Your task to perform on an android device: refresh tabs in the chrome app Image 0: 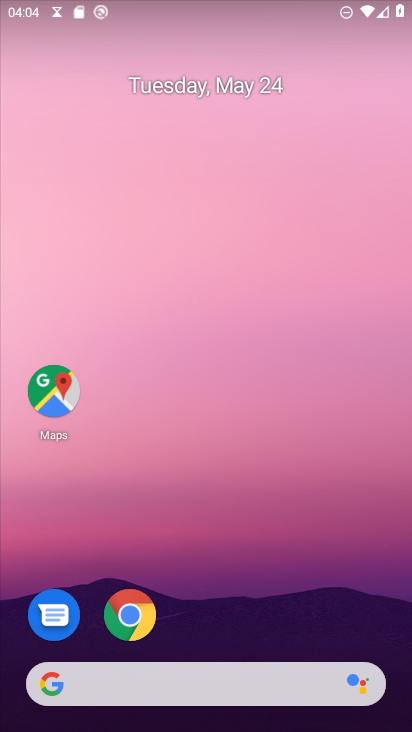
Step 0: drag from (240, 578) to (235, 37)
Your task to perform on an android device: refresh tabs in the chrome app Image 1: 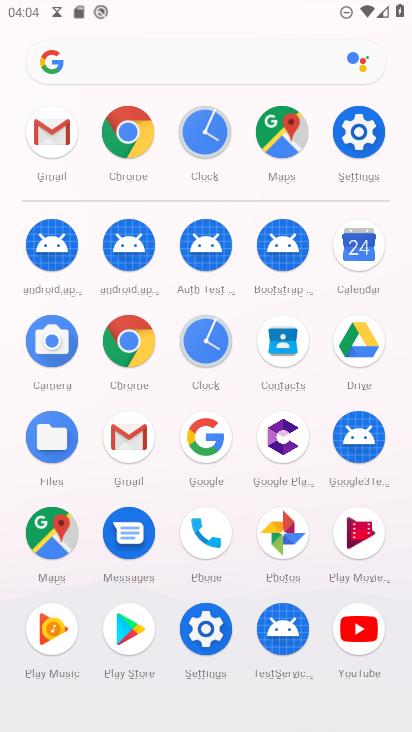
Step 1: click (124, 337)
Your task to perform on an android device: refresh tabs in the chrome app Image 2: 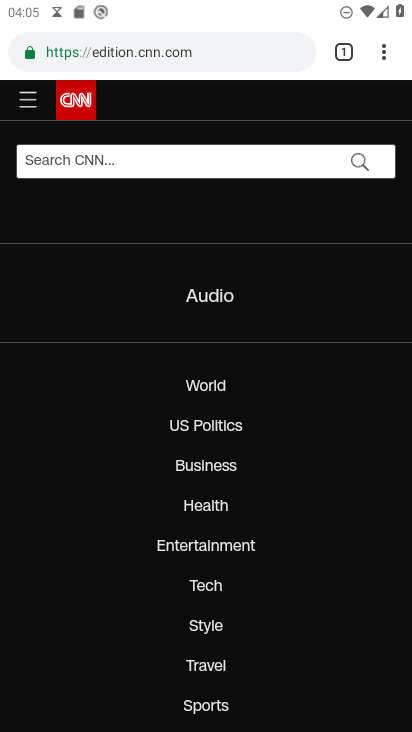
Step 2: press home button
Your task to perform on an android device: refresh tabs in the chrome app Image 3: 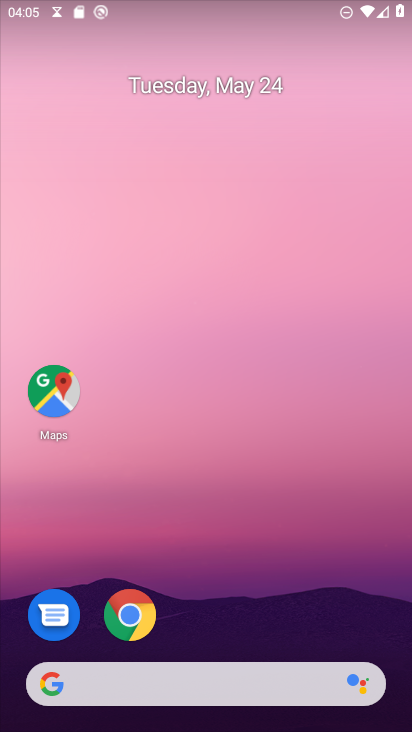
Step 3: drag from (267, 568) to (262, 37)
Your task to perform on an android device: refresh tabs in the chrome app Image 4: 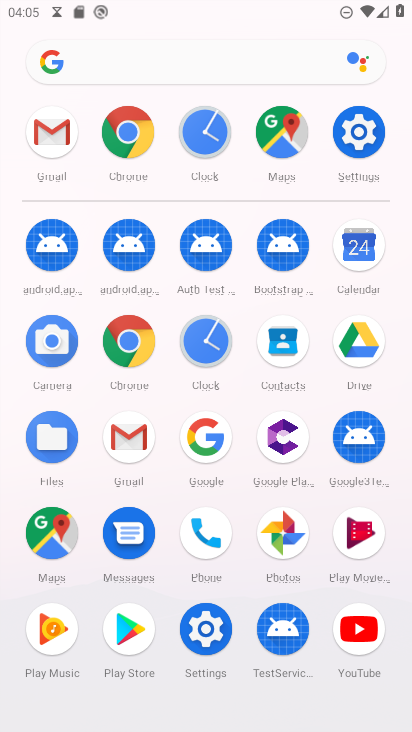
Step 4: click (126, 342)
Your task to perform on an android device: refresh tabs in the chrome app Image 5: 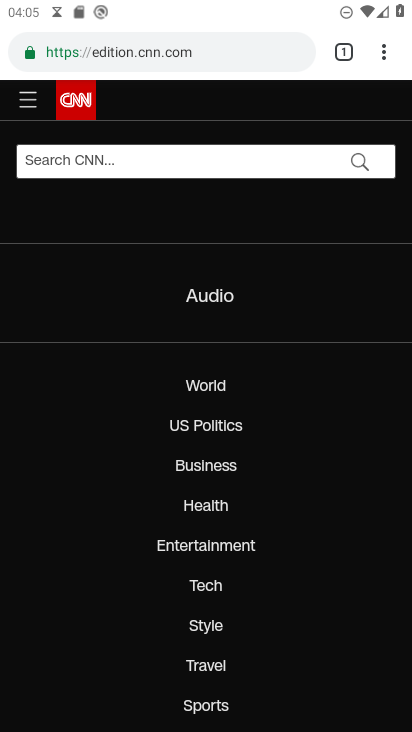
Step 5: click (387, 49)
Your task to perform on an android device: refresh tabs in the chrome app Image 6: 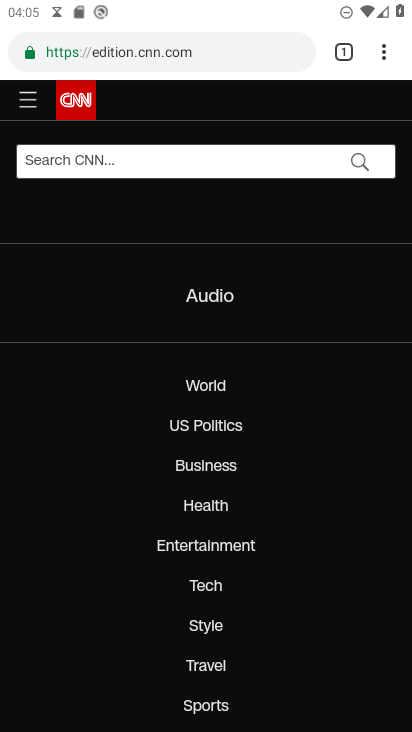
Step 6: task complete